Your task to perform on an android device: change notifications settings Image 0: 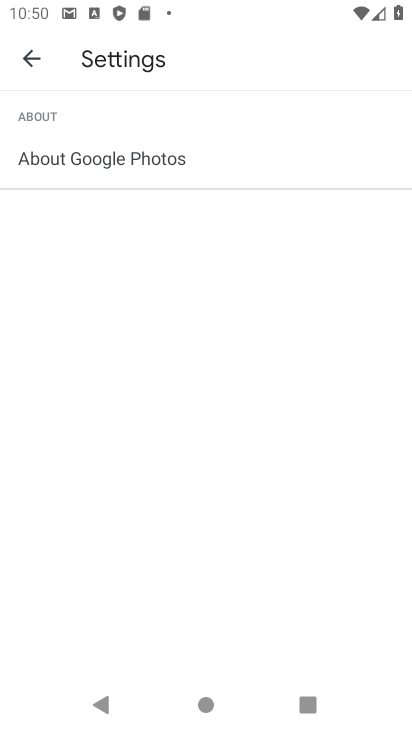
Step 0: press home button
Your task to perform on an android device: change notifications settings Image 1: 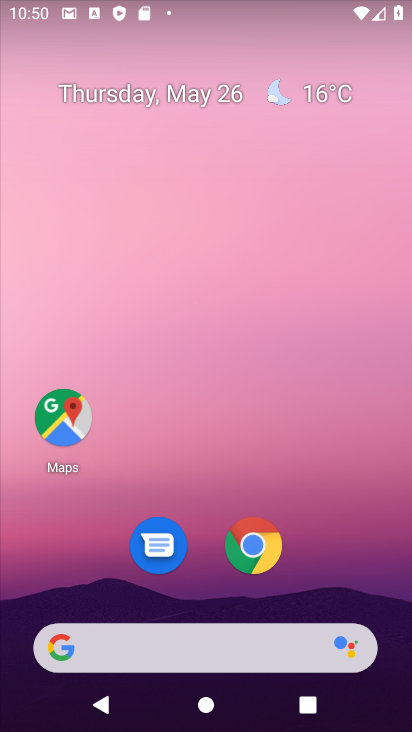
Step 1: drag from (211, 605) to (218, 211)
Your task to perform on an android device: change notifications settings Image 2: 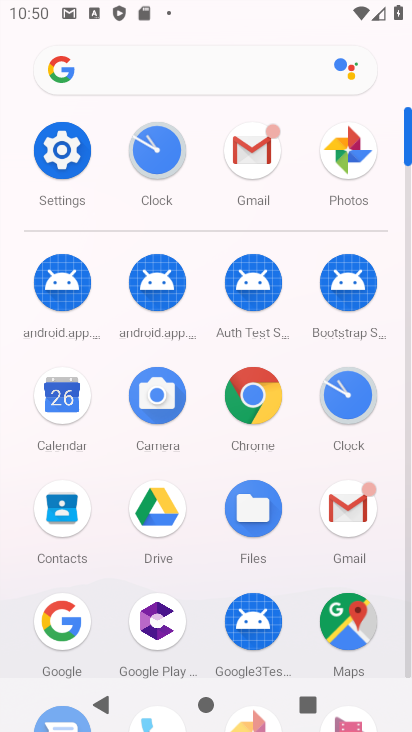
Step 2: click (54, 161)
Your task to perform on an android device: change notifications settings Image 3: 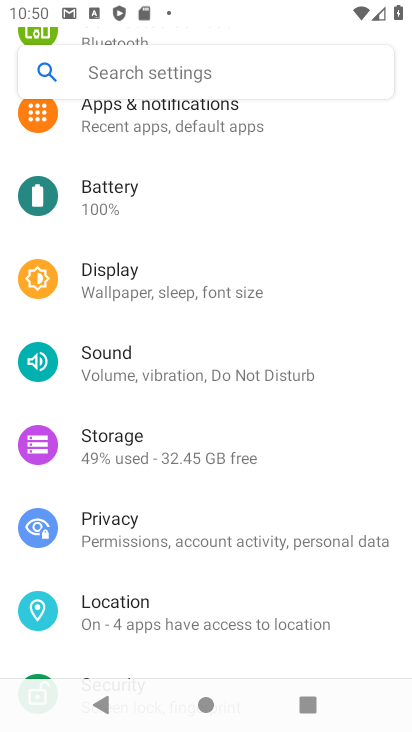
Step 3: click (170, 108)
Your task to perform on an android device: change notifications settings Image 4: 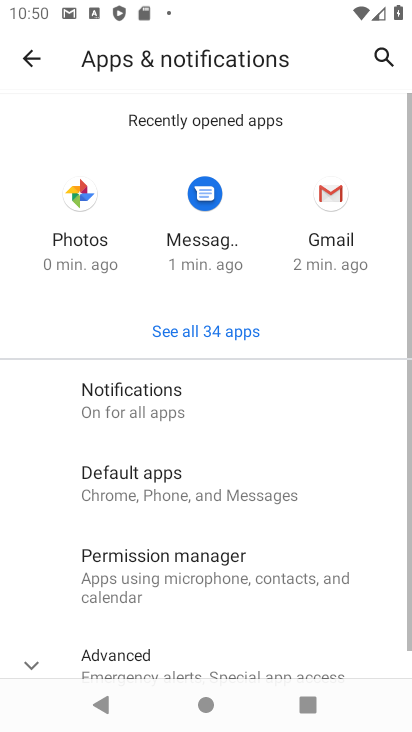
Step 4: click (126, 408)
Your task to perform on an android device: change notifications settings Image 5: 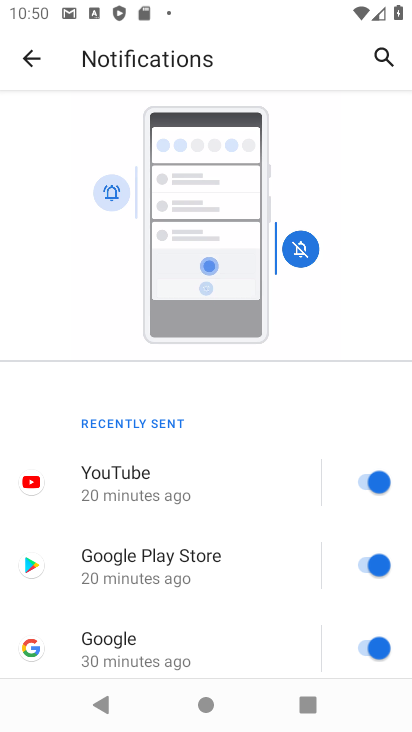
Step 5: drag from (339, 444) to (341, 119)
Your task to perform on an android device: change notifications settings Image 6: 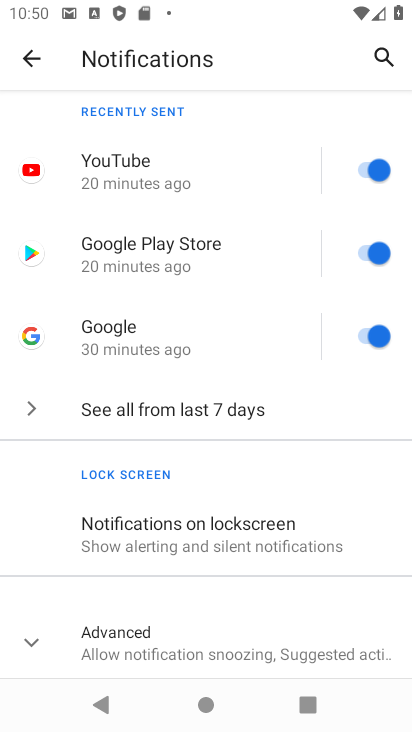
Step 6: click (130, 651)
Your task to perform on an android device: change notifications settings Image 7: 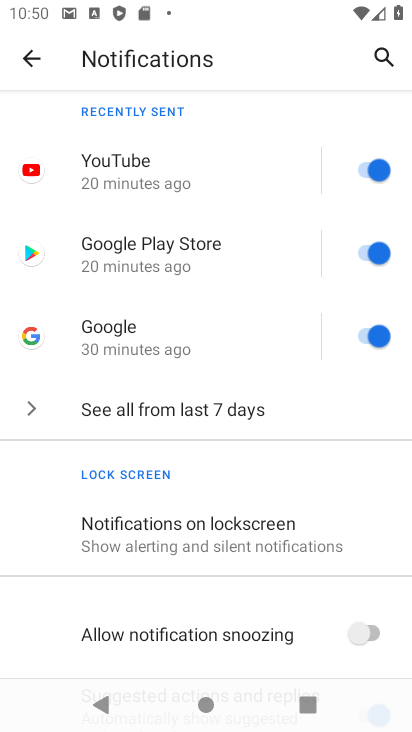
Step 7: click (376, 259)
Your task to perform on an android device: change notifications settings Image 8: 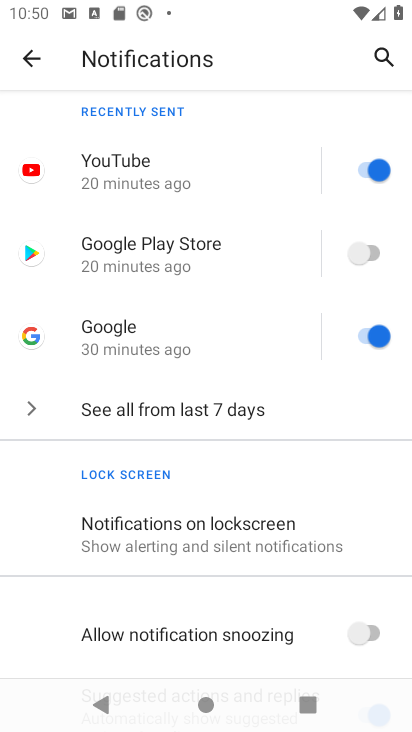
Step 8: task complete